Your task to perform on an android device: Search for seafood restaurants on Google Maps Image 0: 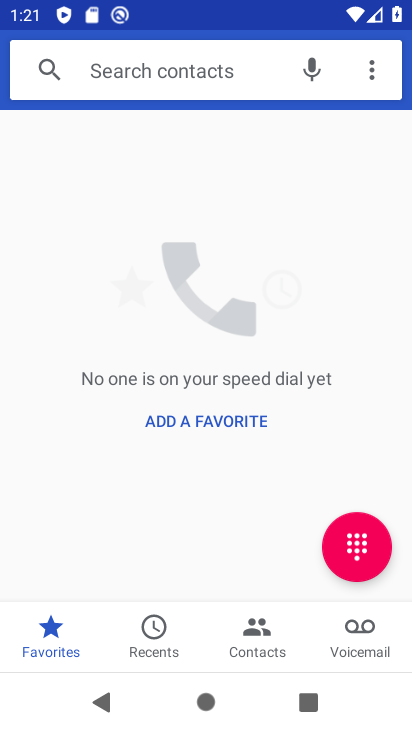
Step 0: press home button
Your task to perform on an android device: Search for seafood restaurants on Google Maps Image 1: 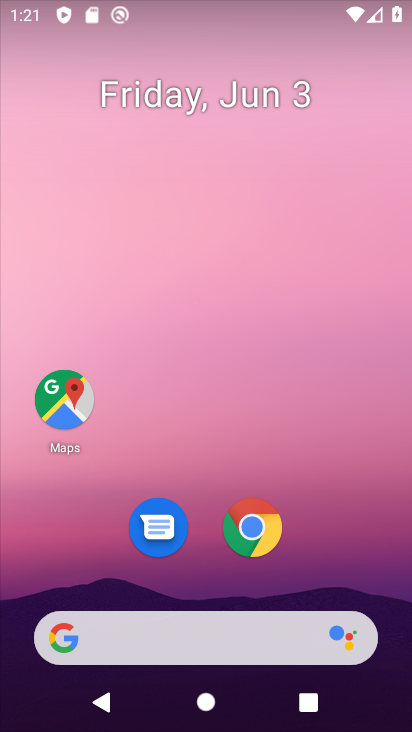
Step 1: click (63, 410)
Your task to perform on an android device: Search for seafood restaurants on Google Maps Image 2: 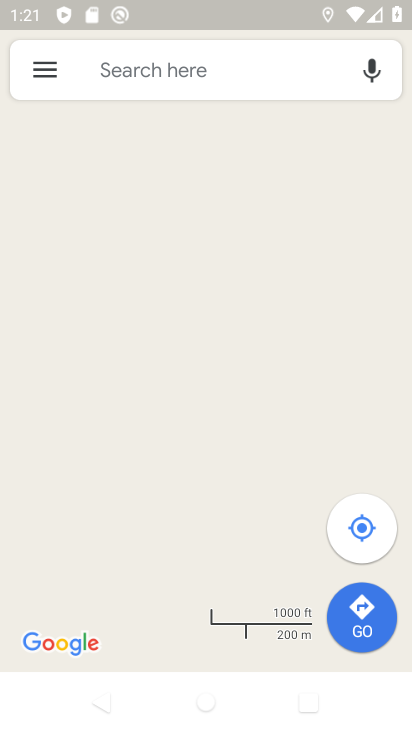
Step 2: click (171, 84)
Your task to perform on an android device: Search for seafood restaurants on Google Maps Image 3: 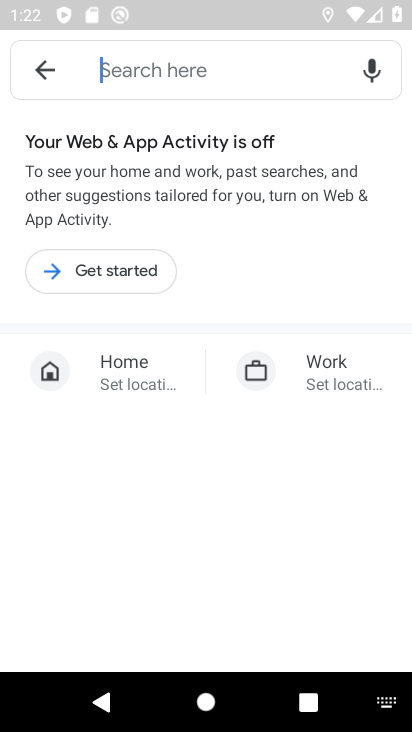
Step 3: type "seafood restaurants"
Your task to perform on an android device: Search for seafood restaurants on Google Maps Image 4: 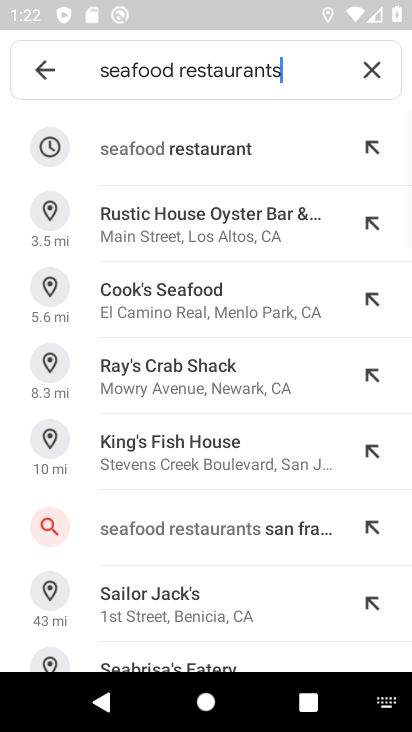
Step 4: click (229, 163)
Your task to perform on an android device: Search for seafood restaurants on Google Maps Image 5: 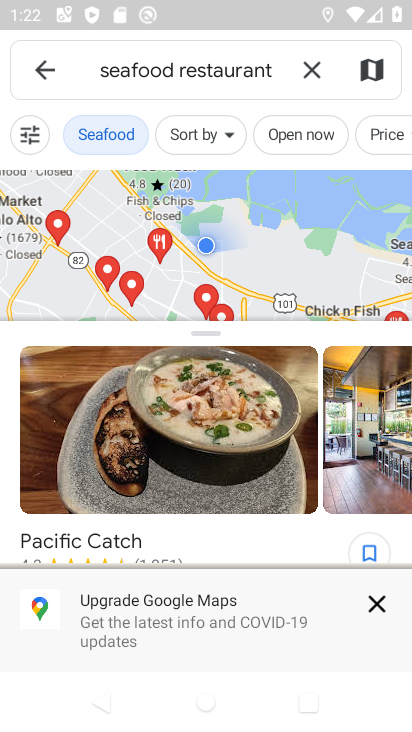
Step 5: task complete